Your task to perform on an android device: open device folders in google photos Image 0: 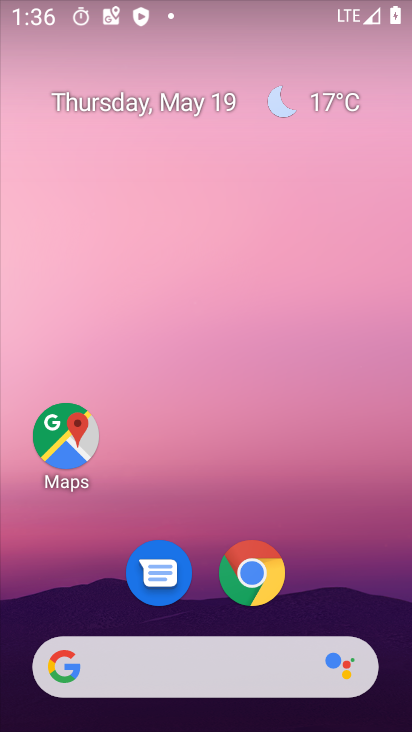
Step 0: drag from (202, 554) to (286, 99)
Your task to perform on an android device: open device folders in google photos Image 1: 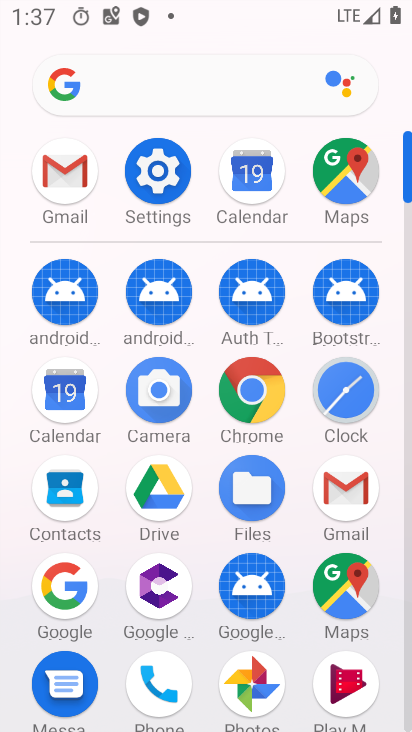
Step 1: drag from (219, 613) to (303, 267)
Your task to perform on an android device: open device folders in google photos Image 2: 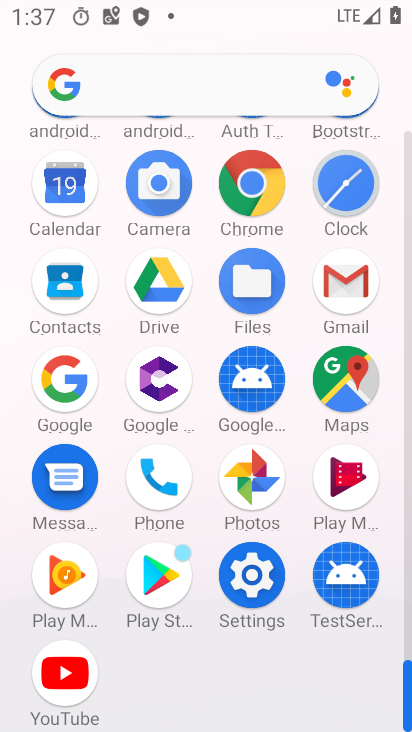
Step 2: click (260, 478)
Your task to perform on an android device: open device folders in google photos Image 3: 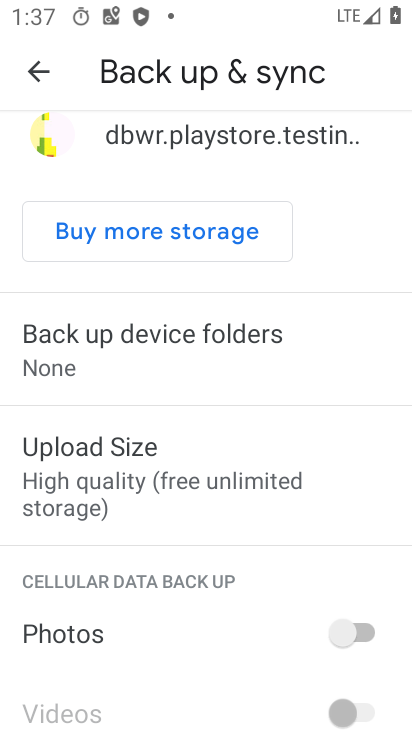
Step 3: task complete